Your task to perform on an android device: choose inbox layout in the gmail app Image 0: 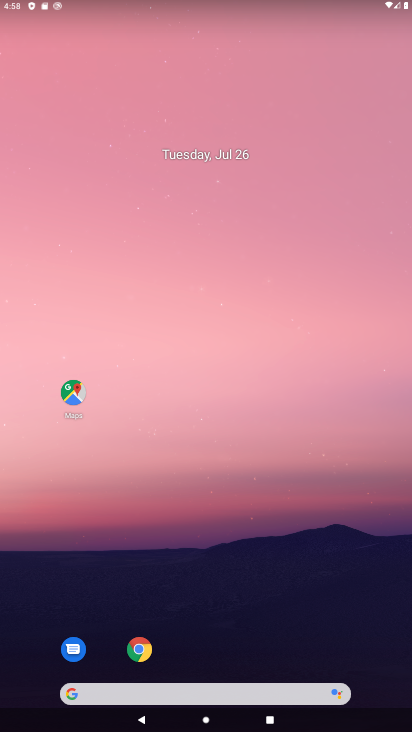
Step 0: drag from (259, 628) to (256, 0)
Your task to perform on an android device: choose inbox layout in the gmail app Image 1: 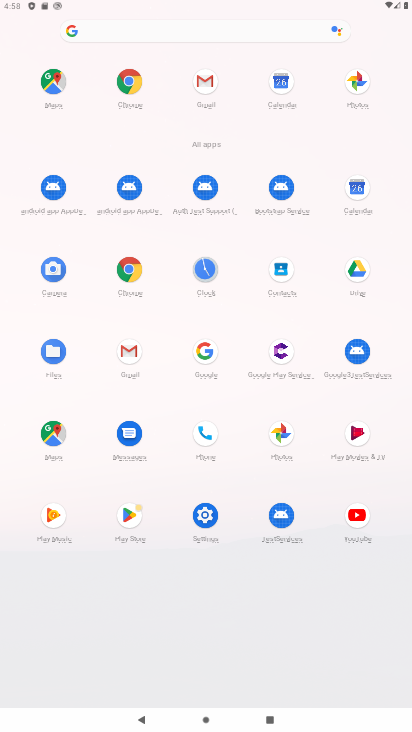
Step 1: click (205, 79)
Your task to perform on an android device: choose inbox layout in the gmail app Image 2: 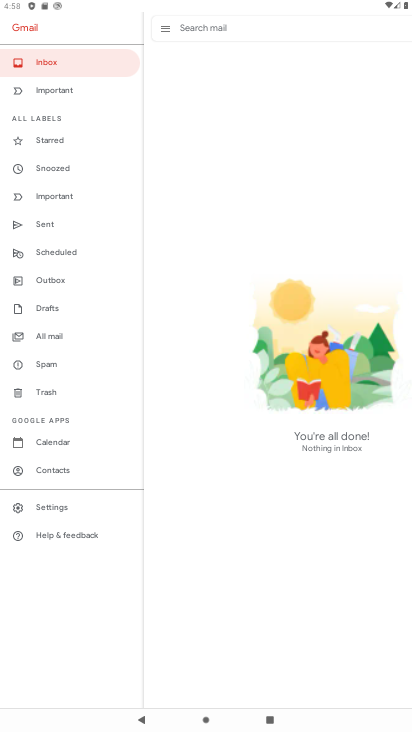
Step 2: click (64, 501)
Your task to perform on an android device: choose inbox layout in the gmail app Image 3: 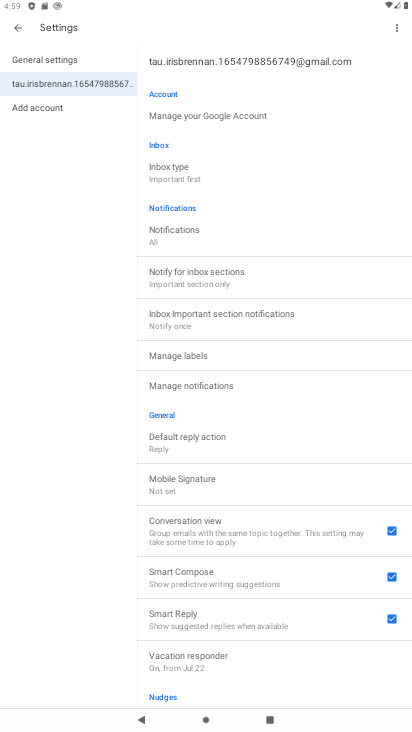
Step 3: click (203, 171)
Your task to perform on an android device: choose inbox layout in the gmail app Image 4: 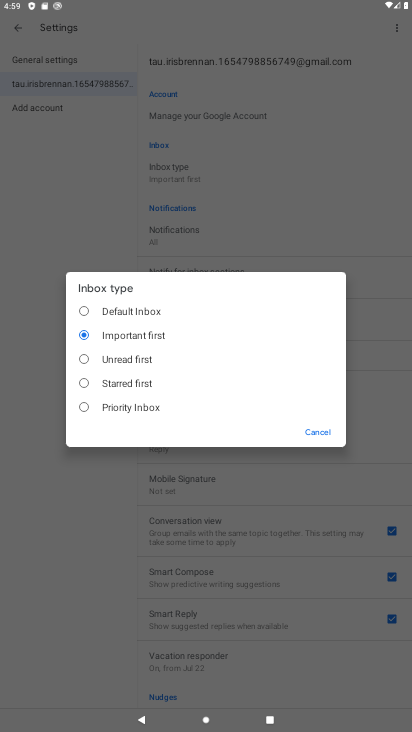
Step 4: click (134, 382)
Your task to perform on an android device: choose inbox layout in the gmail app Image 5: 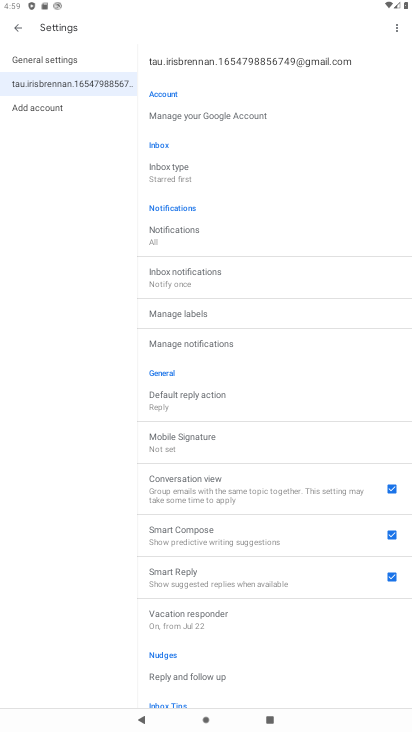
Step 5: task complete